Your task to perform on an android device: Add logitech g pro to the cart on ebay.com Image 0: 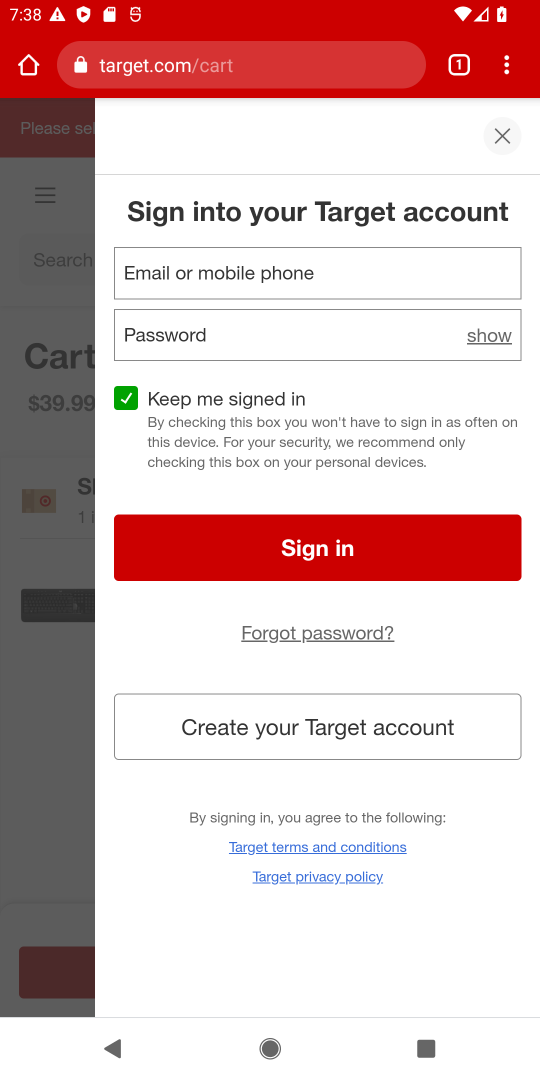
Step 0: press home button
Your task to perform on an android device: Add logitech g pro to the cart on ebay.com Image 1: 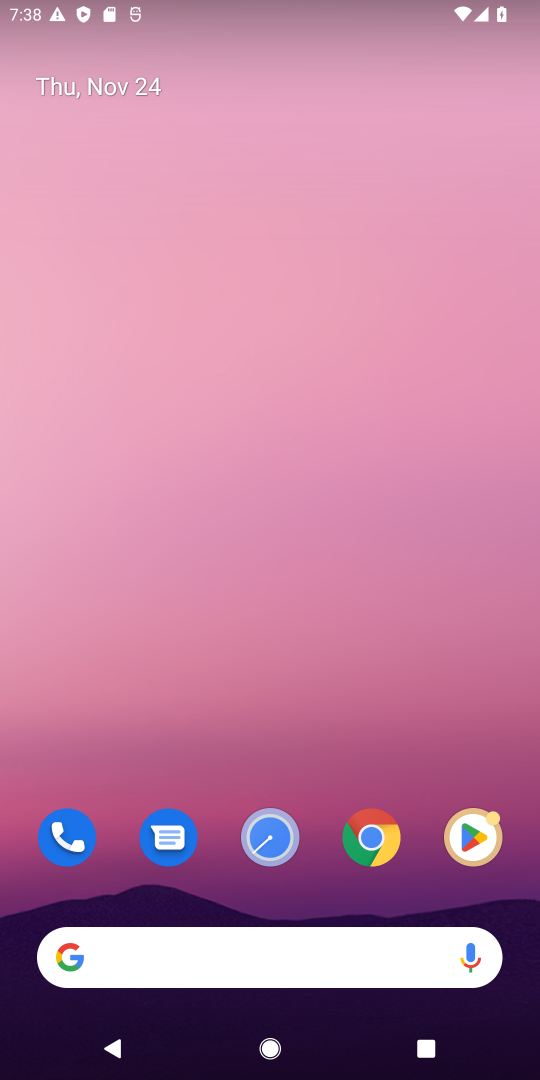
Step 1: click (364, 833)
Your task to perform on an android device: Add logitech g pro to the cart on ebay.com Image 2: 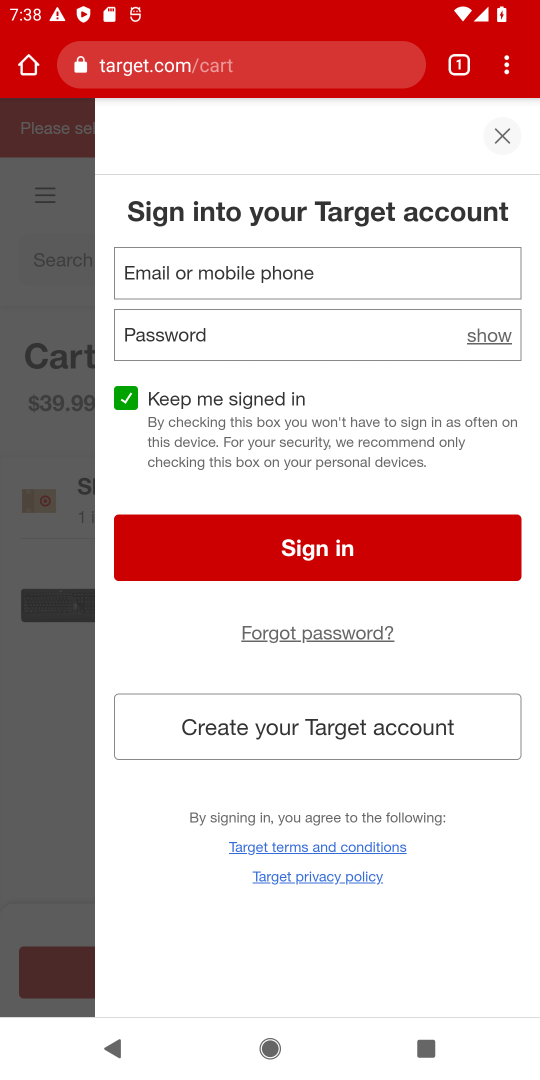
Step 2: click (164, 69)
Your task to perform on an android device: Add logitech g pro to the cart on ebay.com Image 3: 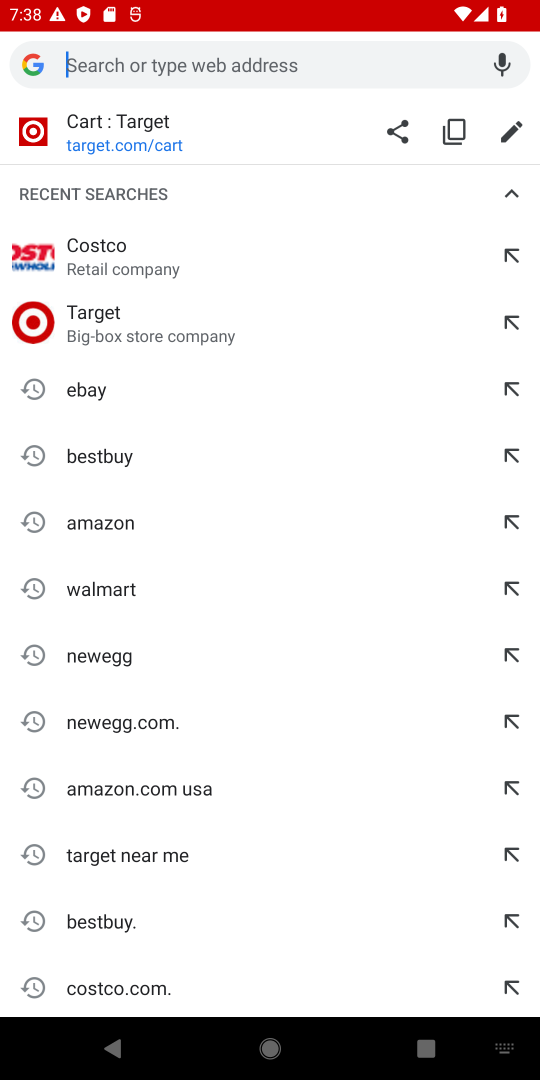
Step 3: type "ebay.com"
Your task to perform on an android device: Add logitech g pro to the cart on ebay.com Image 4: 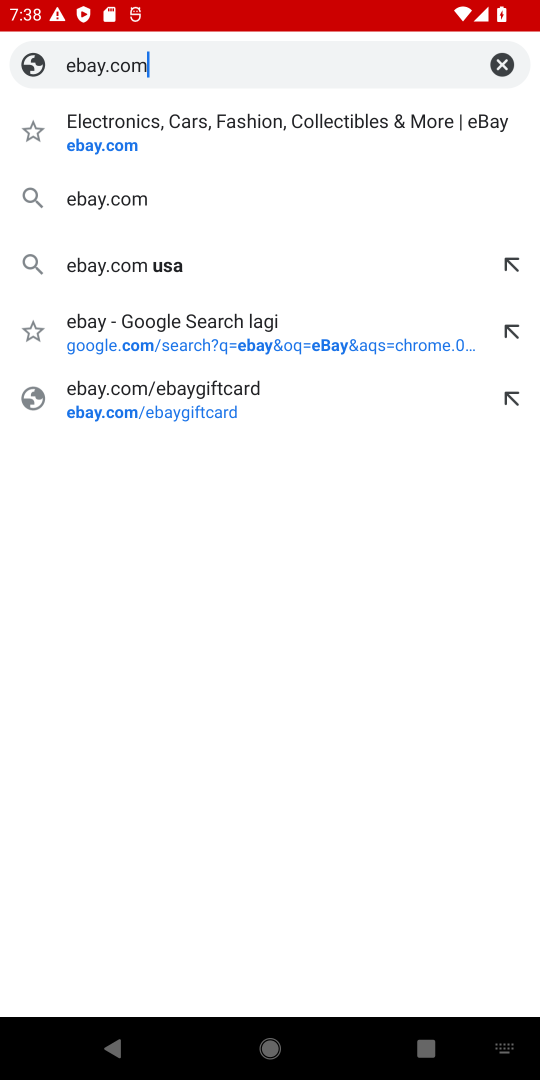
Step 4: click (136, 202)
Your task to perform on an android device: Add logitech g pro to the cart on ebay.com Image 5: 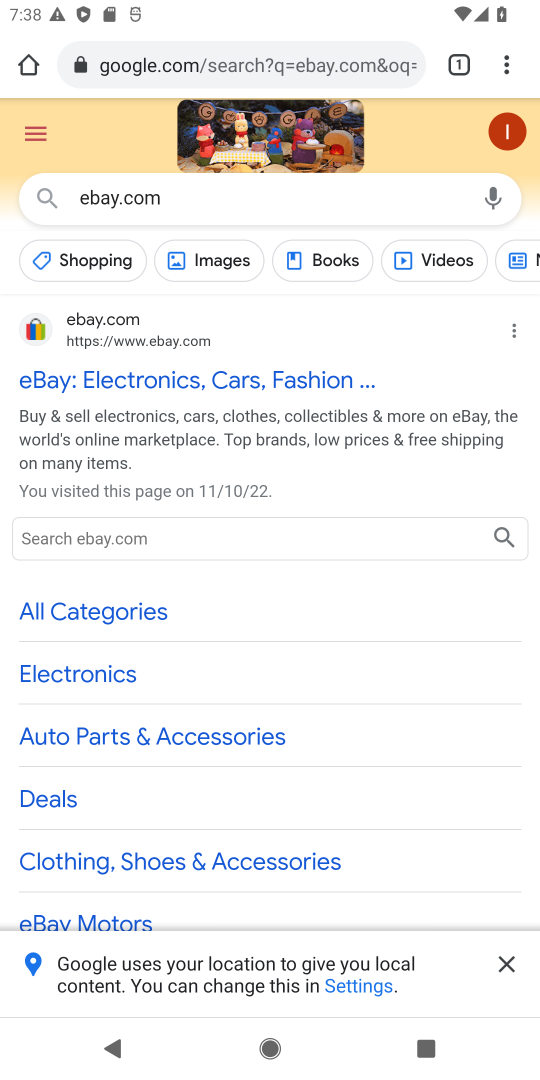
Step 5: click (120, 380)
Your task to perform on an android device: Add logitech g pro to the cart on ebay.com Image 6: 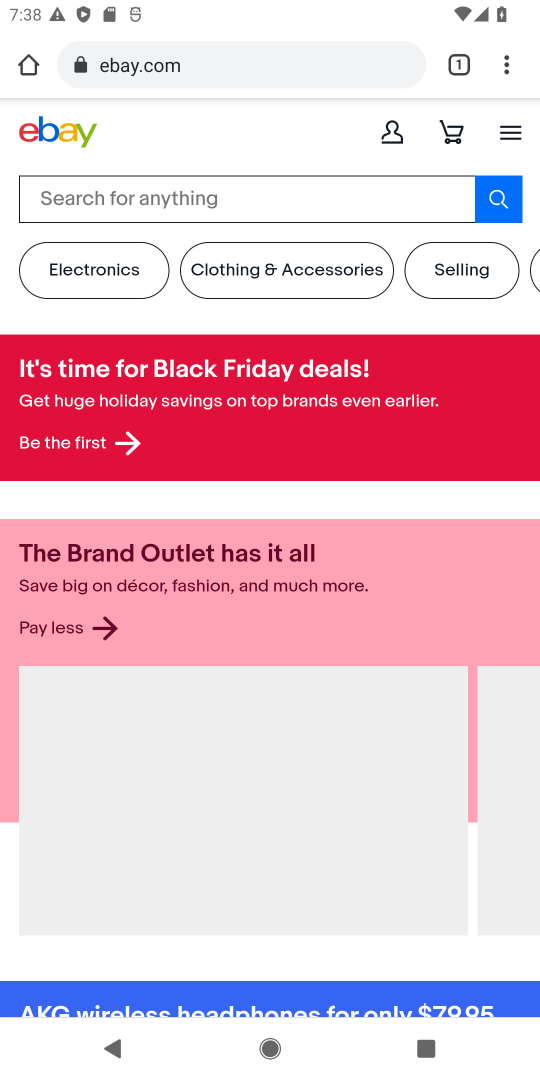
Step 6: click (208, 193)
Your task to perform on an android device: Add logitech g pro to the cart on ebay.com Image 7: 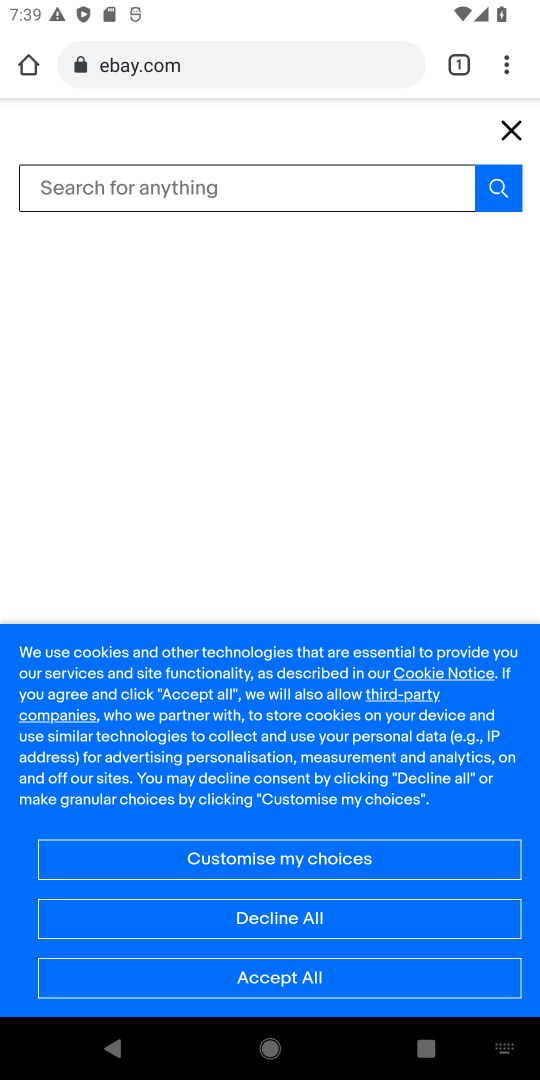
Step 7: type "logitech g pro"
Your task to perform on an android device: Add logitech g pro to the cart on ebay.com Image 8: 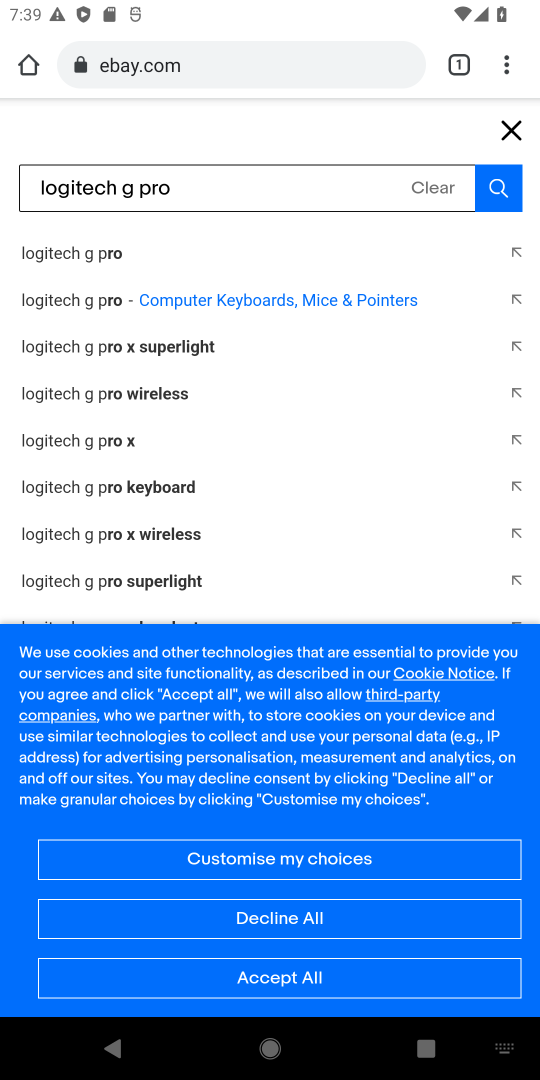
Step 8: click (493, 209)
Your task to perform on an android device: Add logitech g pro to the cart on ebay.com Image 9: 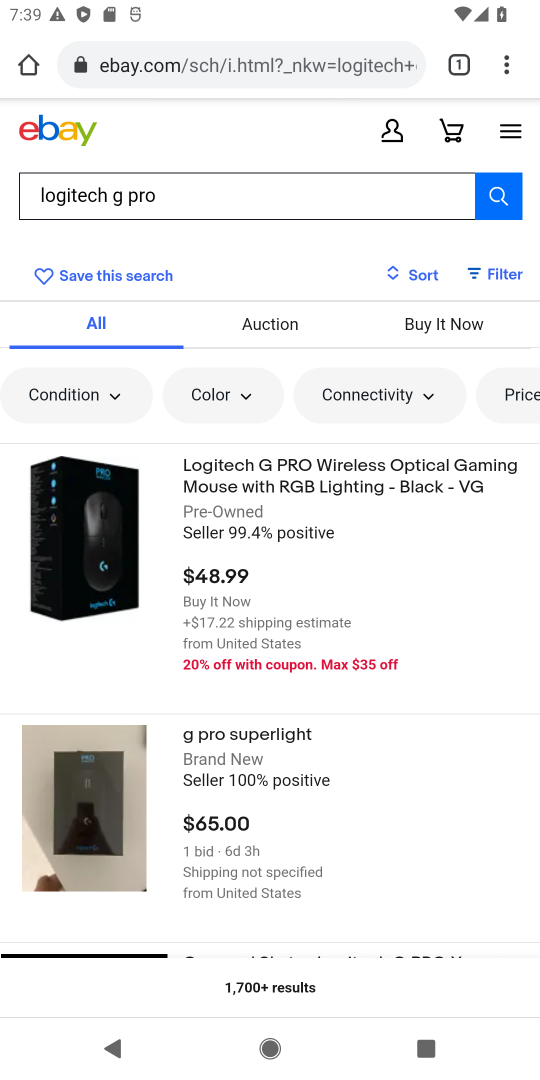
Step 9: click (359, 476)
Your task to perform on an android device: Add logitech g pro to the cart on ebay.com Image 10: 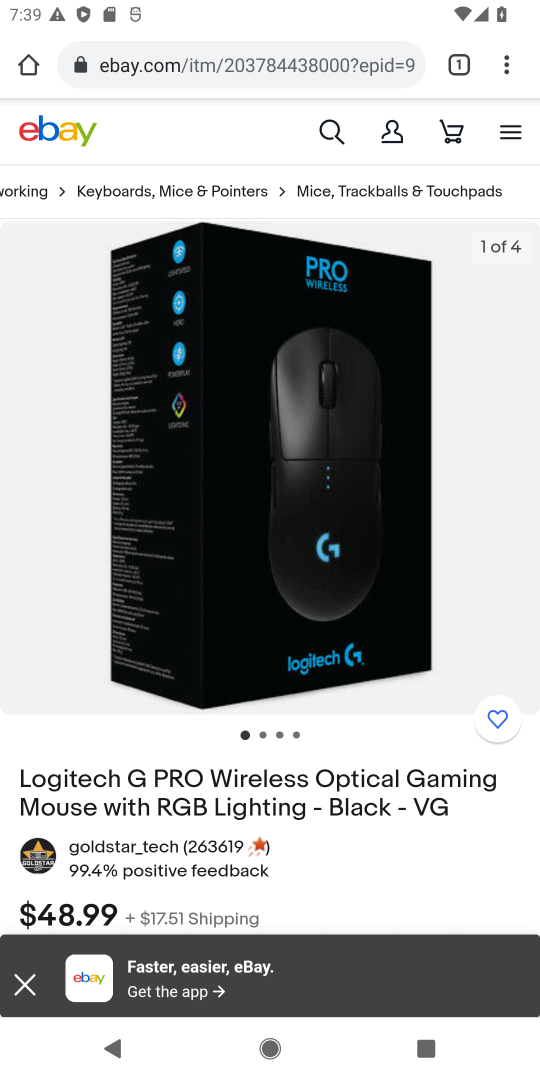
Step 10: drag from (298, 846) to (297, 581)
Your task to perform on an android device: Add logitech g pro to the cart on ebay.com Image 11: 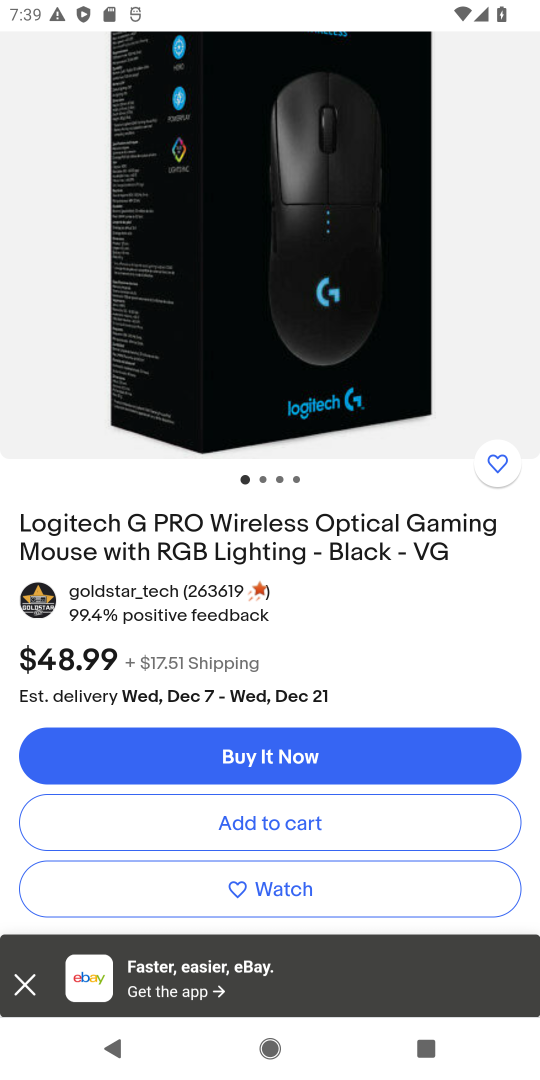
Step 11: click (288, 819)
Your task to perform on an android device: Add logitech g pro to the cart on ebay.com Image 12: 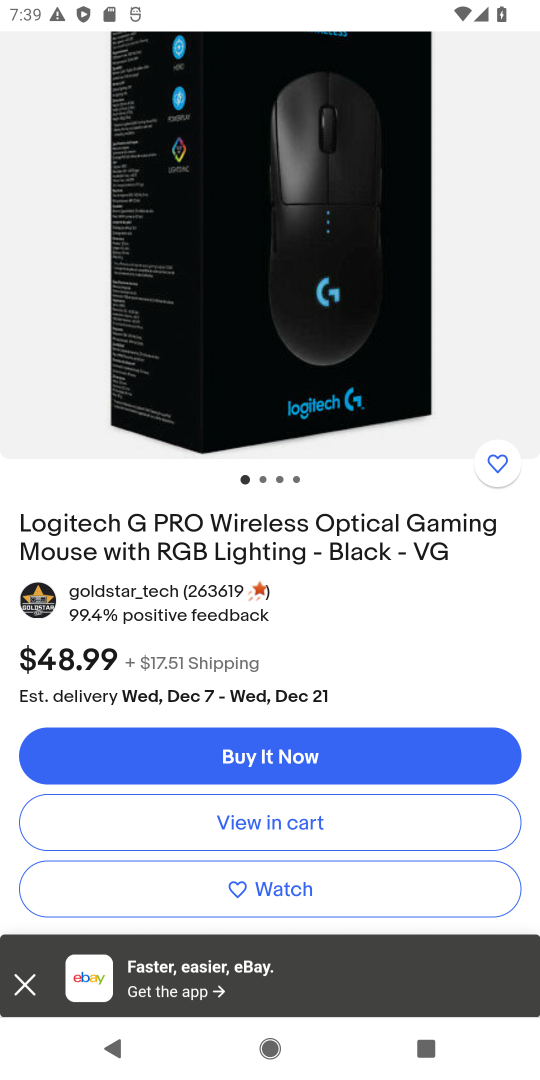
Step 12: task complete